Your task to perform on an android device: empty trash in google photos Image 0: 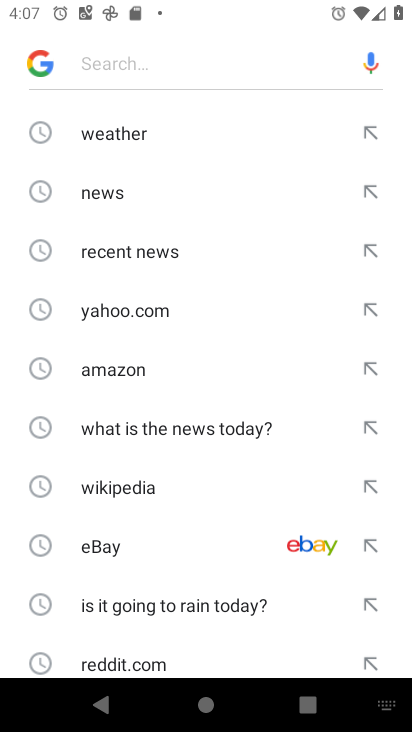
Step 0: press home button
Your task to perform on an android device: empty trash in google photos Image 1: 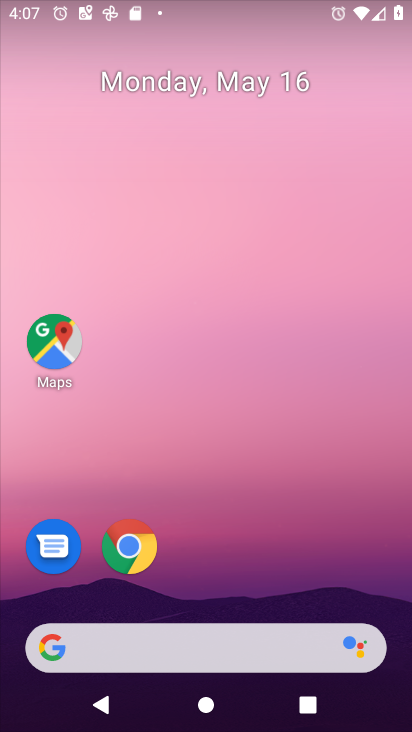
Step 1: drag from (360, 594) to (377, 140)
Your task to perform on an android device: empty trash in google photos Image 2: 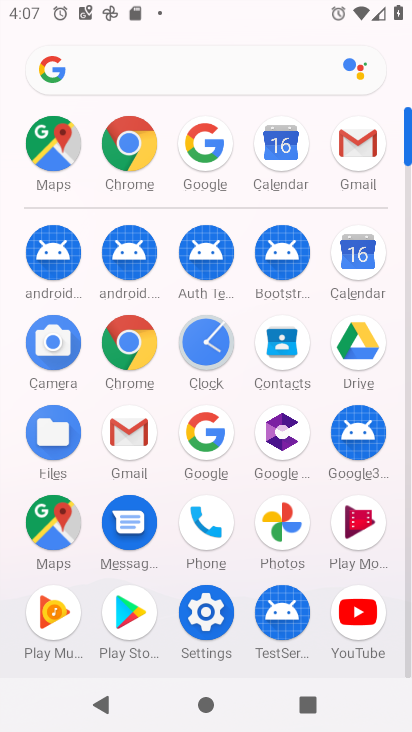
Step 2: click (290, 522)
Your task to perform on an android device: empty trash in google photos Image 3: 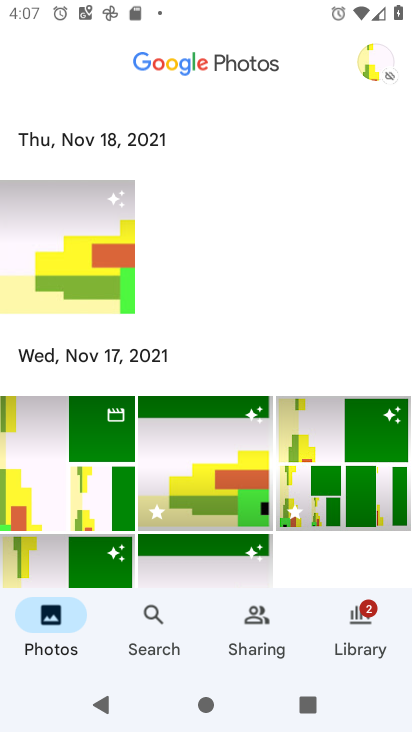
Step 3: click (372, 631)
Your task to perform on an android device: empty trash in google photos Image 4: 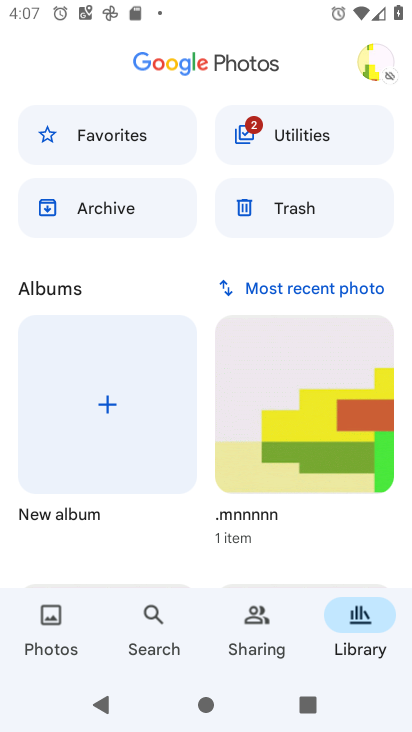
Step 4: click (307, 216)
Your task to perform on an android device: empty trash in google photos Image 5: 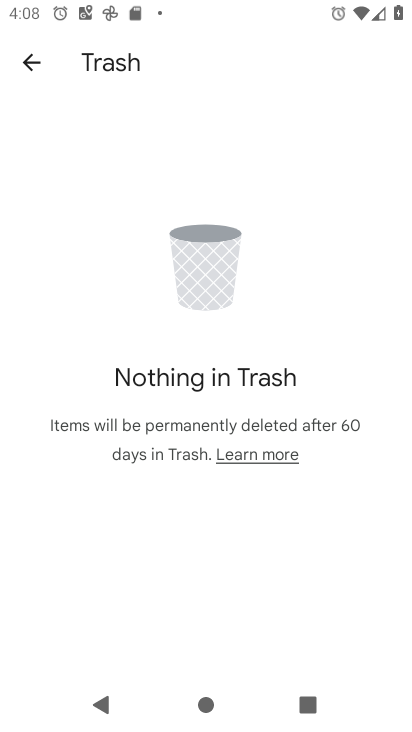
Step 5: task complete